Your task to perform on an android device: Open the calendar and show me this week's events? Image 0: 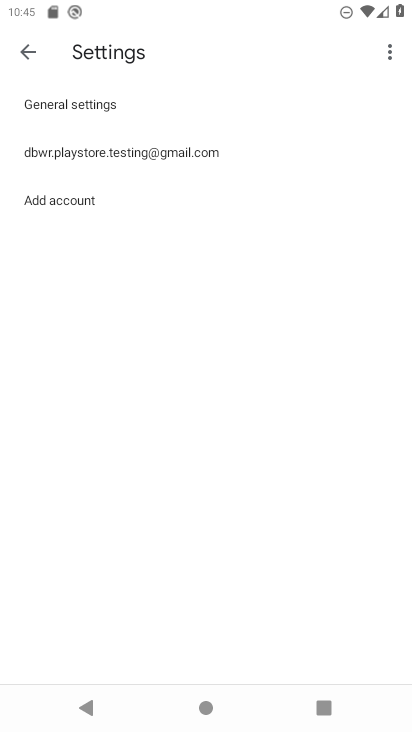
Step 0: press home button
Your task to perform on an android device: Open the calendar and show me this week's events? Image 1: 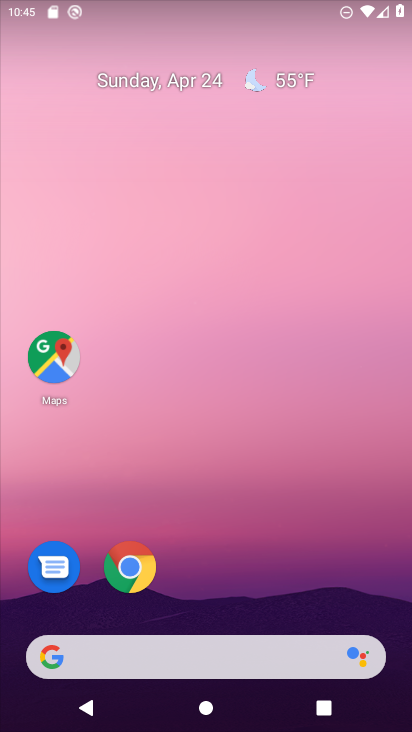
Step 1: drag from (383, 586) to (353, 186)
Your task to perform on an android device: Open the calendar and show me this week's events? Image 2: 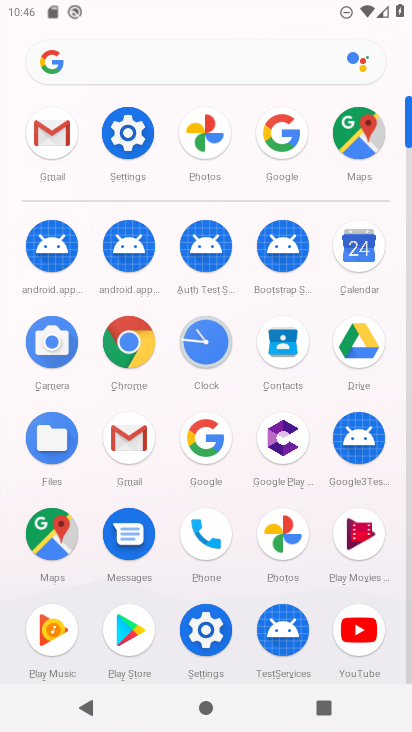
Step 2: click (353, 247)
Your task to perform on an android device: Open the calendar and show me this week's events? Image 3: 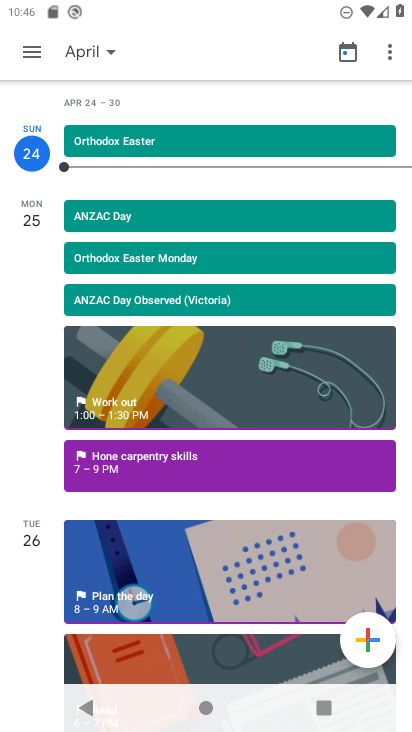
Step 3: click (104, 50)
Your task to perform on an android device: Open the calendar and show me this week's events? Image 4: 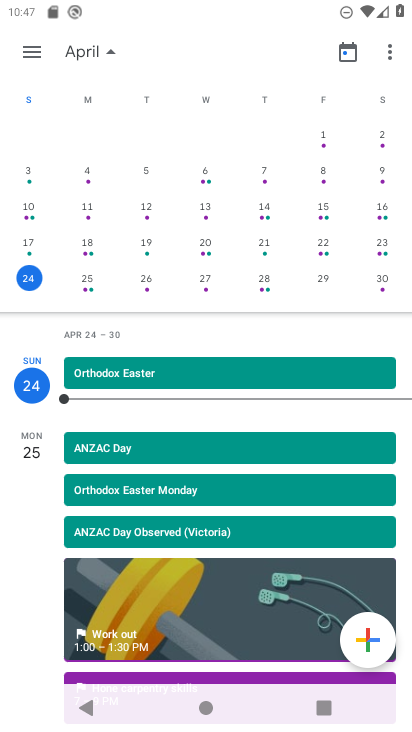
Step 4: click (40, 57)
Your task to perform on an android device: Open the calendar and show me this week's events? Image 5: 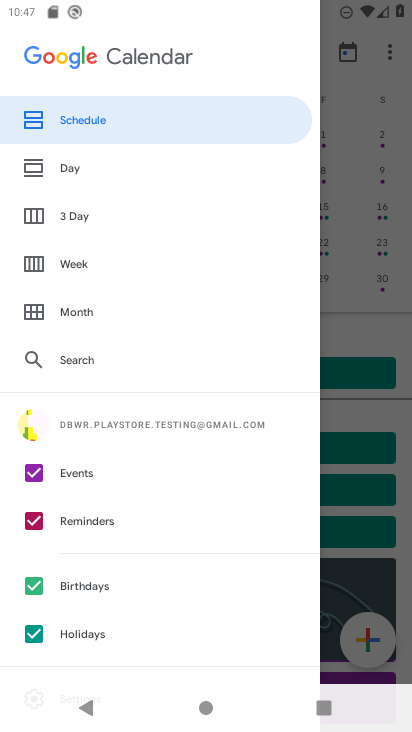
Step 5: click (64, 264)
Your task to perform on an android device: Open the calendar and show me this week's events? Image 6: 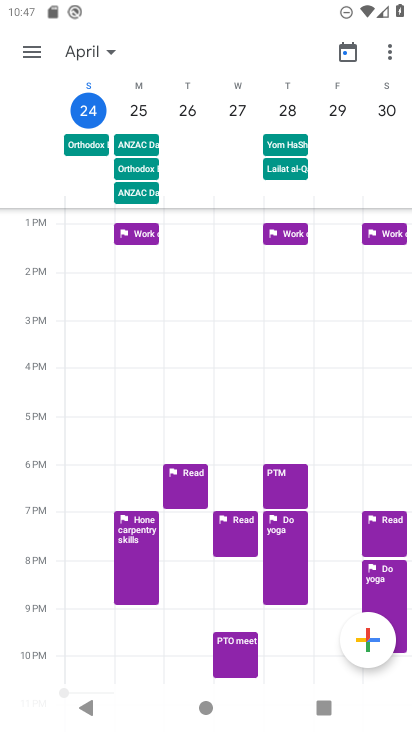
Step 6: task complete